Your task to perform on an android device: turn on showing notifications on the lock screen Image 0: 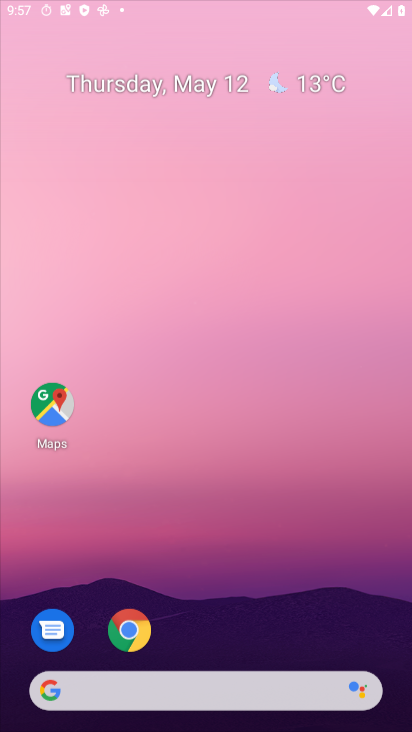
Step 0: click (145, 632)
Your task to perform on an android device: turn on showing notifications on the lock screen Image 1: 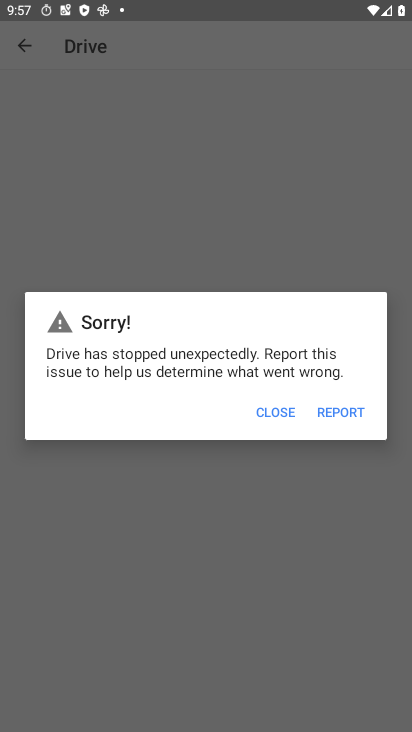
Step 1: click (272, 417)
Your task to perform on an android device: turn on showing notifications on the lock screen Image 2: 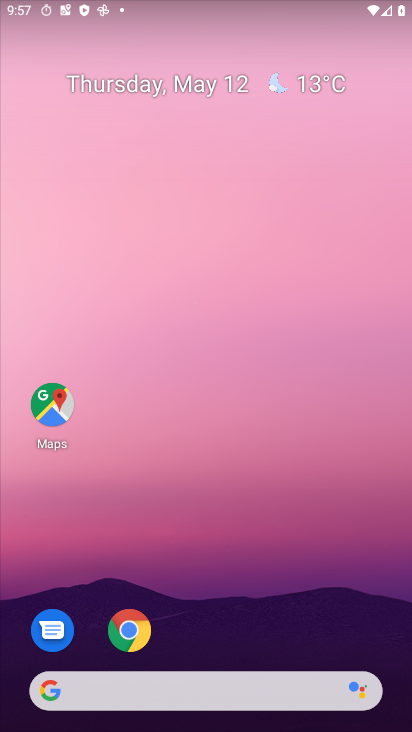
Step 2: drag from (190, 683) to (167, 113)
Your task to perform on an android device: turn on showing notifications on the lock screen Image 3: 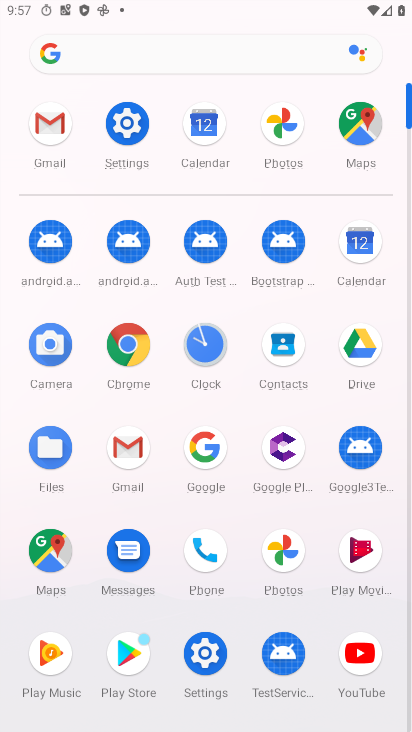
Step 3: click (203, 648)
Your task to perform on an android device: turn on showing notifications on the lock screen Image 4: 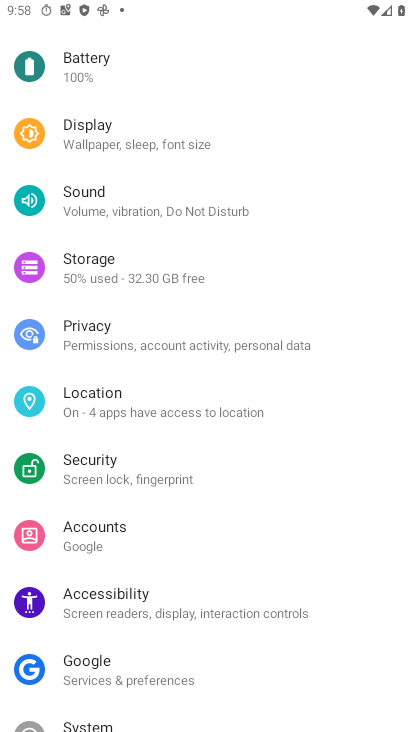
Step 4: drag from (219, 186) to (240, 458)
Your task to perform on an android device: turn on showing notifications on the lock screen Image 5: 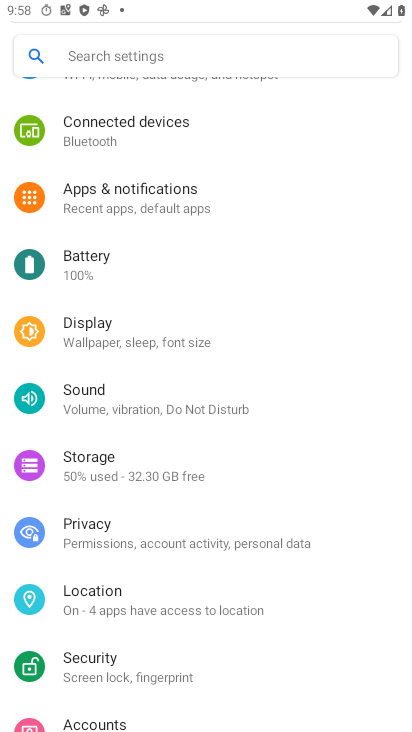
Step 5: click (100, 198)
Your task to perform on an android device: turn on showing notifications on the lock screen Image 6: 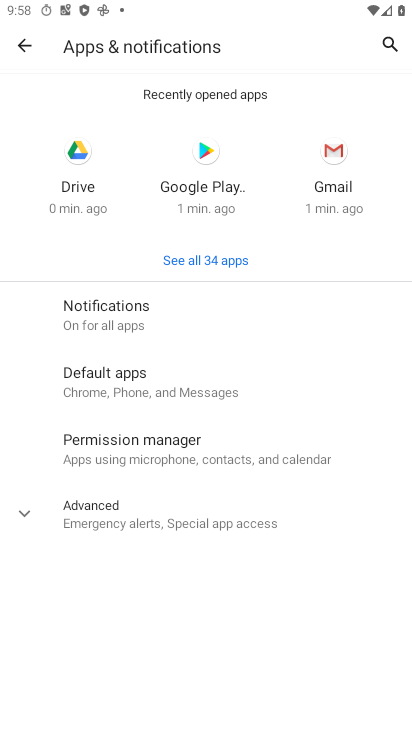
Step 6: click (122, 328)
Your task to perform on an android device: turn on showing notifications on the lock screen Image 7: 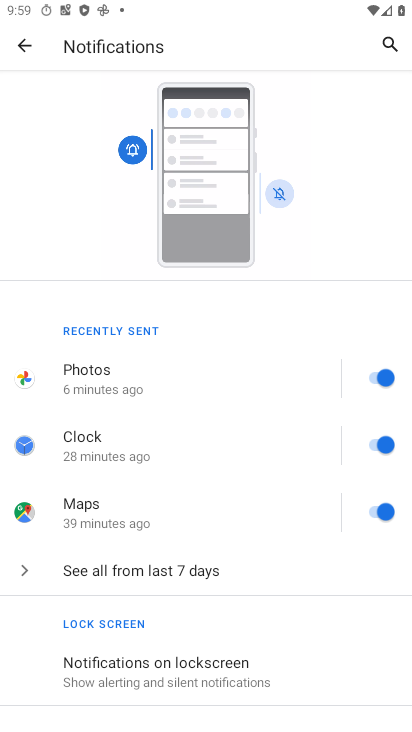
Step 7: click (143, 656)
Your task to perform on an android device: turn on showing notifications on the lock screen Image 8: 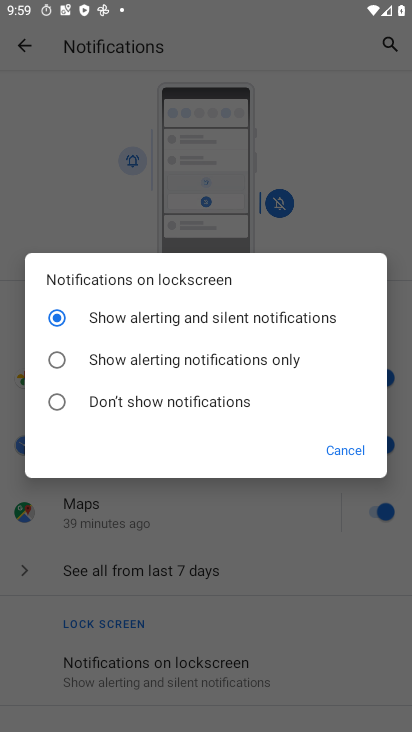
Step 8: click (126, 326)
Your task to perform on an android device: turn on showing notifications on the lock screen Image 9: 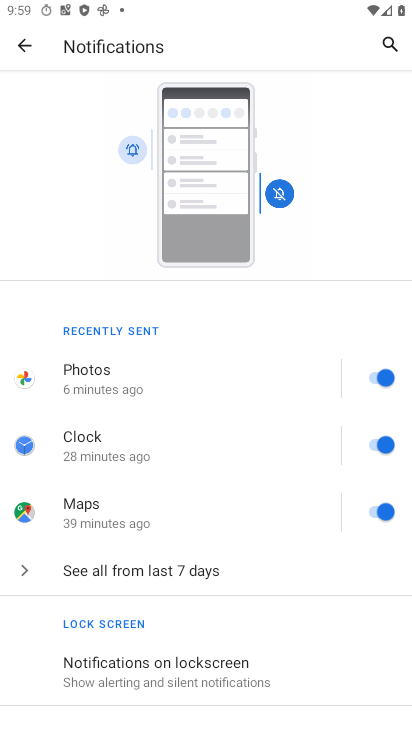
Step 9: task complete